Your task to perform on an android device: toggle airplane mode Image 0: 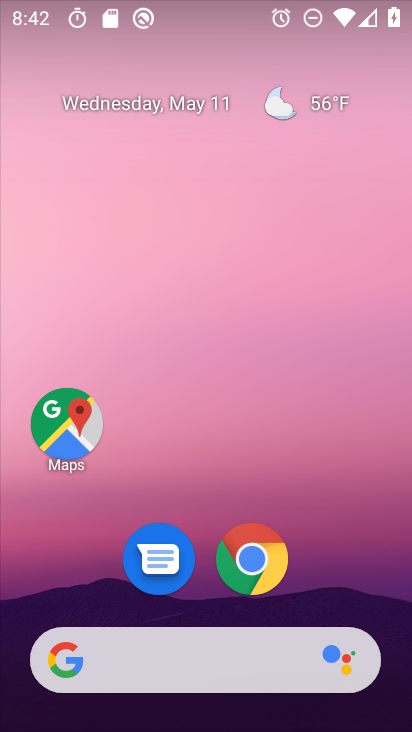
Step 0: drag from (308, 589) to (224, 17)
Your task to perform on an android device: toggle airplane mode Image 1: 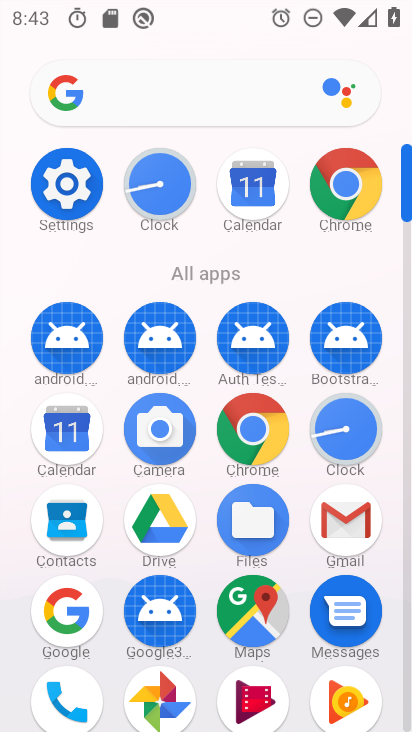
Step 1: click (74, 181)
Your task to perform on an android device: toggle airplane mode Image 2: 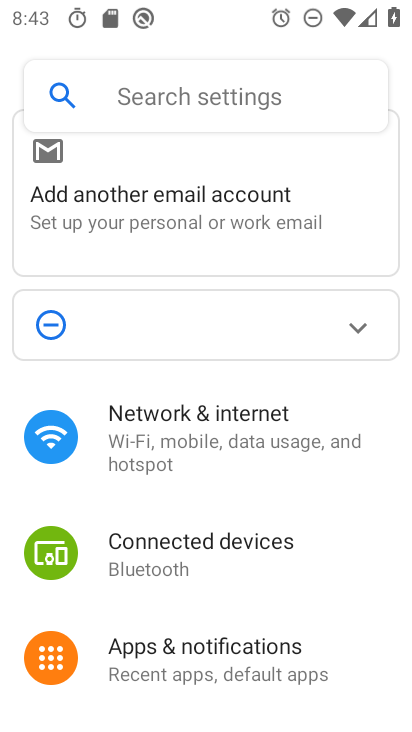
Step 2: click (207, 389)
Your task to perform on an android device: toggle airplane mode Image 3: 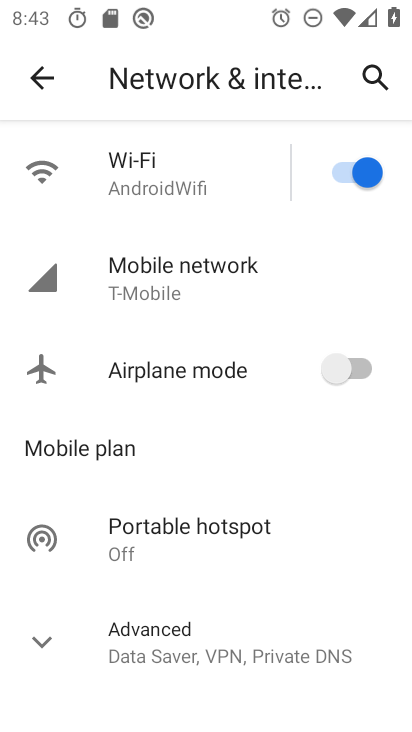
Step 3: click (359, 371)
Your task to perform on an android device: toggle airplane mode Image 4: 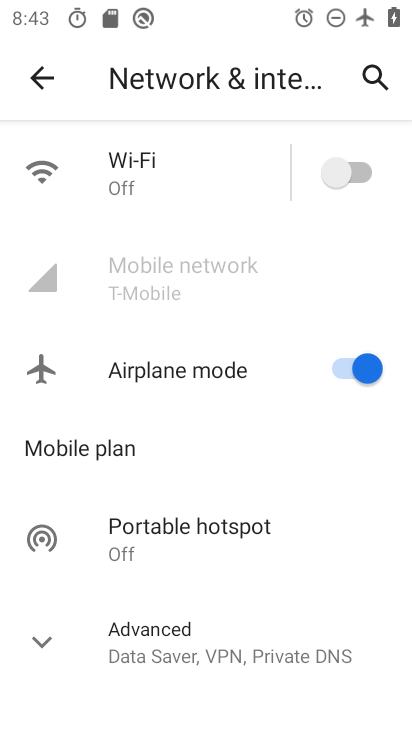
Step 4: task complete